Your task to perform on an android device: Open accessibility settings Image 0: 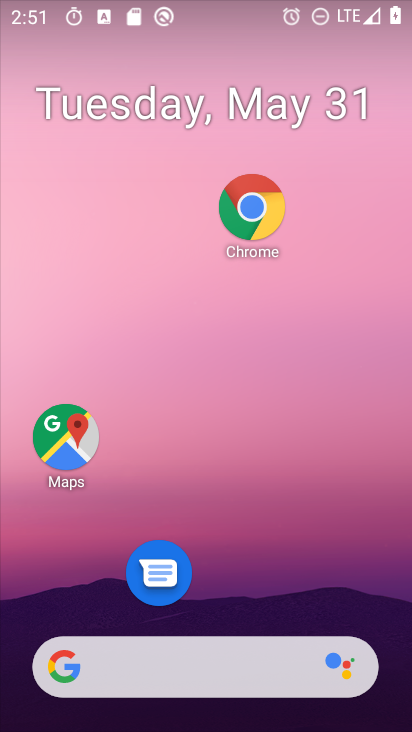
Step 0: drag from (304, 366) to (304, 54)
Your task to perform on an android device: Open accessibility settings Image 1: 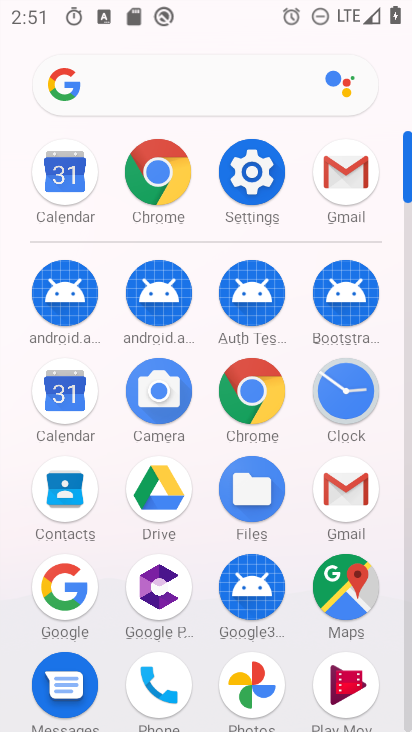
Step 1: click (254, 196)
Your task to perform on an android device: Open accessibility settings Image 2: 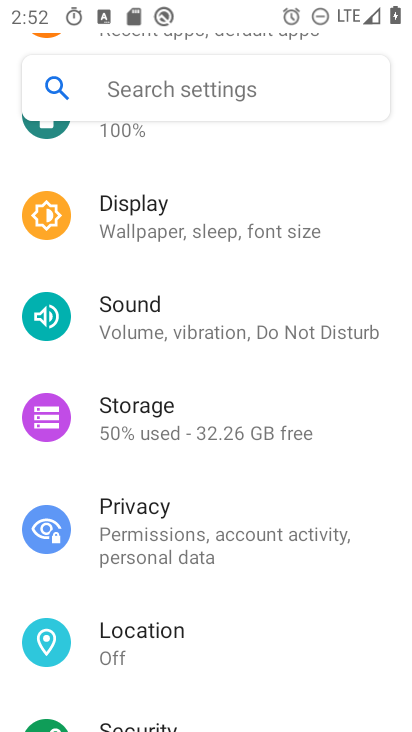
Step 2: drag from (188, 582) to (210, 190)
Your task to perform on an android device: Open accessibility settings Image 3: 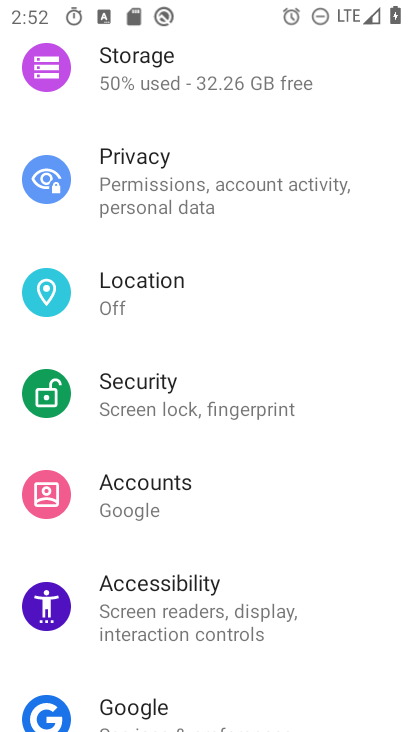
Step 3: click (188, 607)
Your task to perform on an android device: Open accessibility settings Image 4: 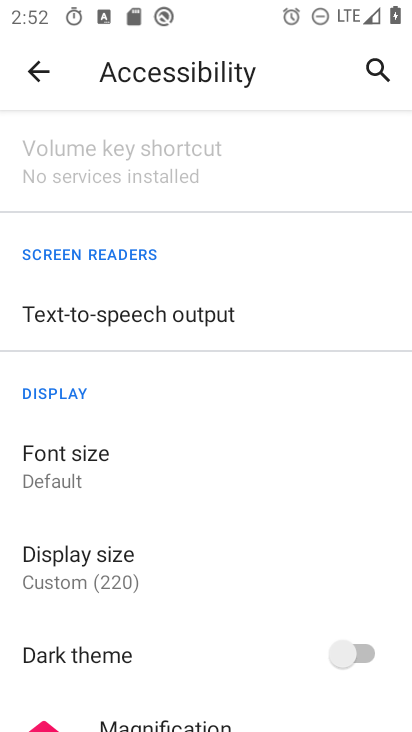
Step 4: task complete